Your task to perform on an android device: set default search engine in the chrome app Image 0: 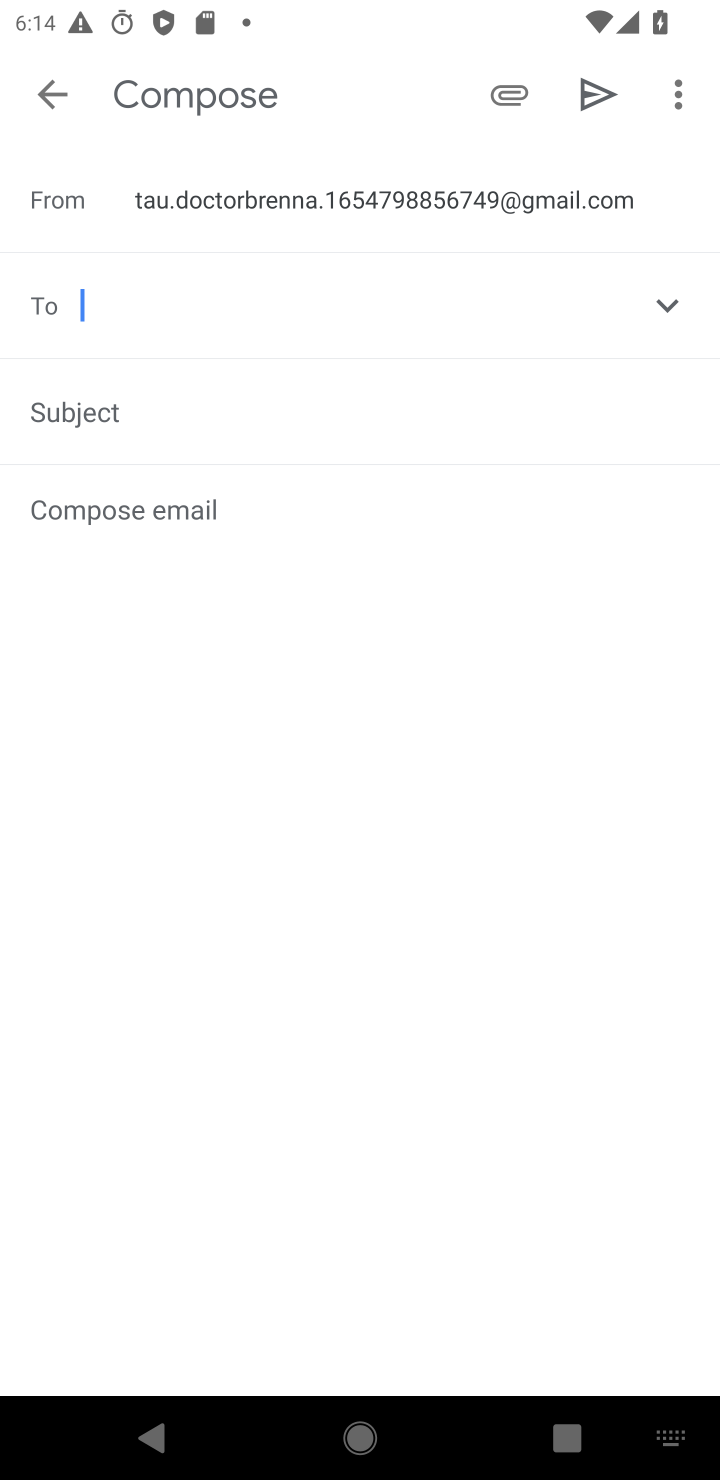
Step 0: press home button
Your task to perform on an android device: set default search engine in the chrome app Image 1: 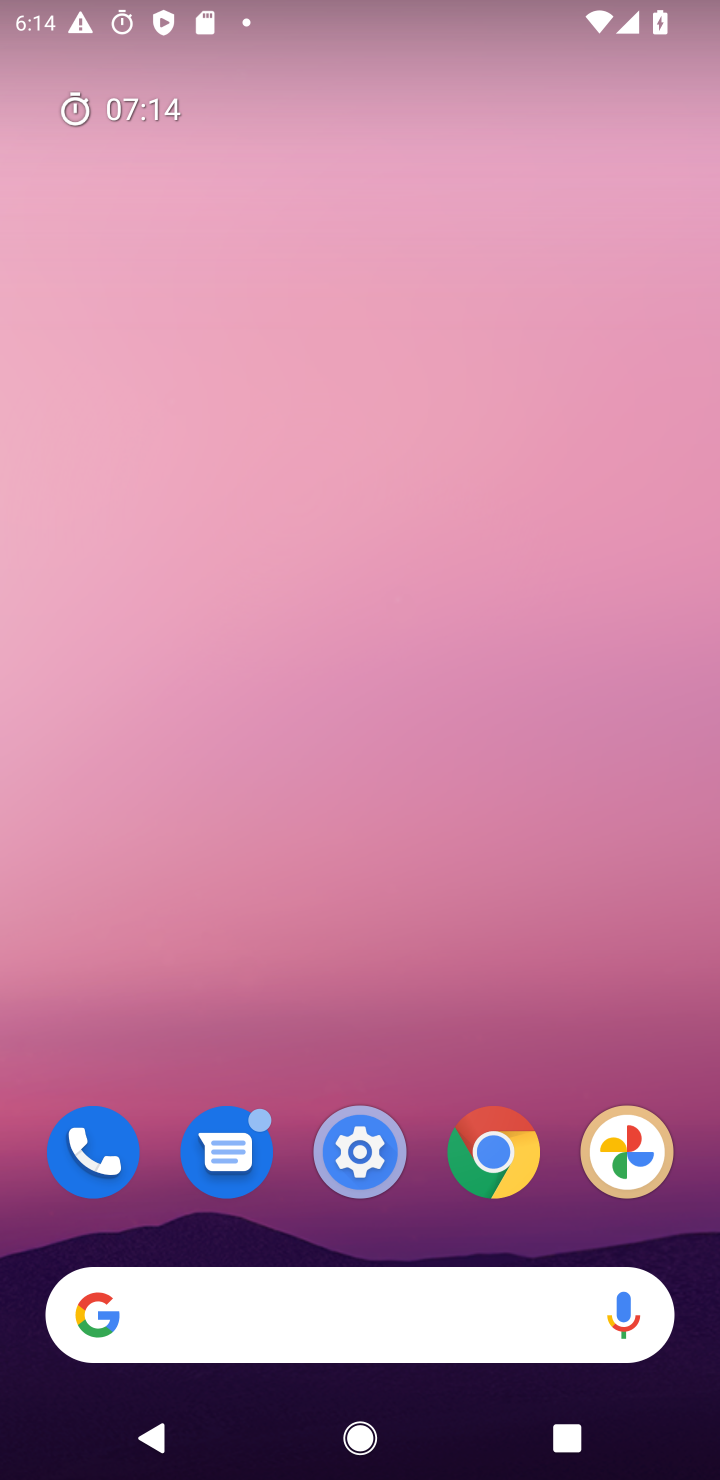
Step 1: drag from (426, 1094) to (648, 66)
Your task to perform on an android device: set default search engine in the chrome app Image 2: 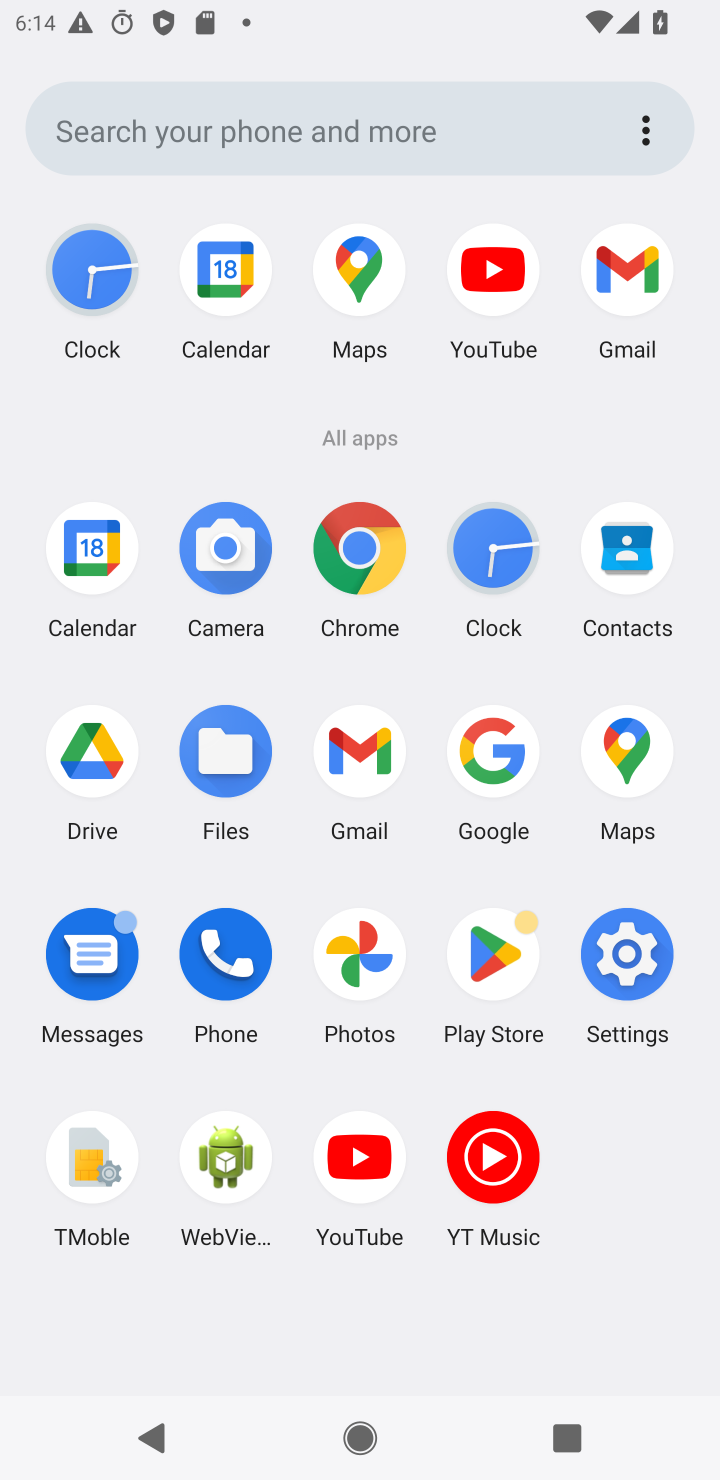
Step 2: click (355, 557)
Your task to perform on an android device: set default search engine in the chrome app Image 3: 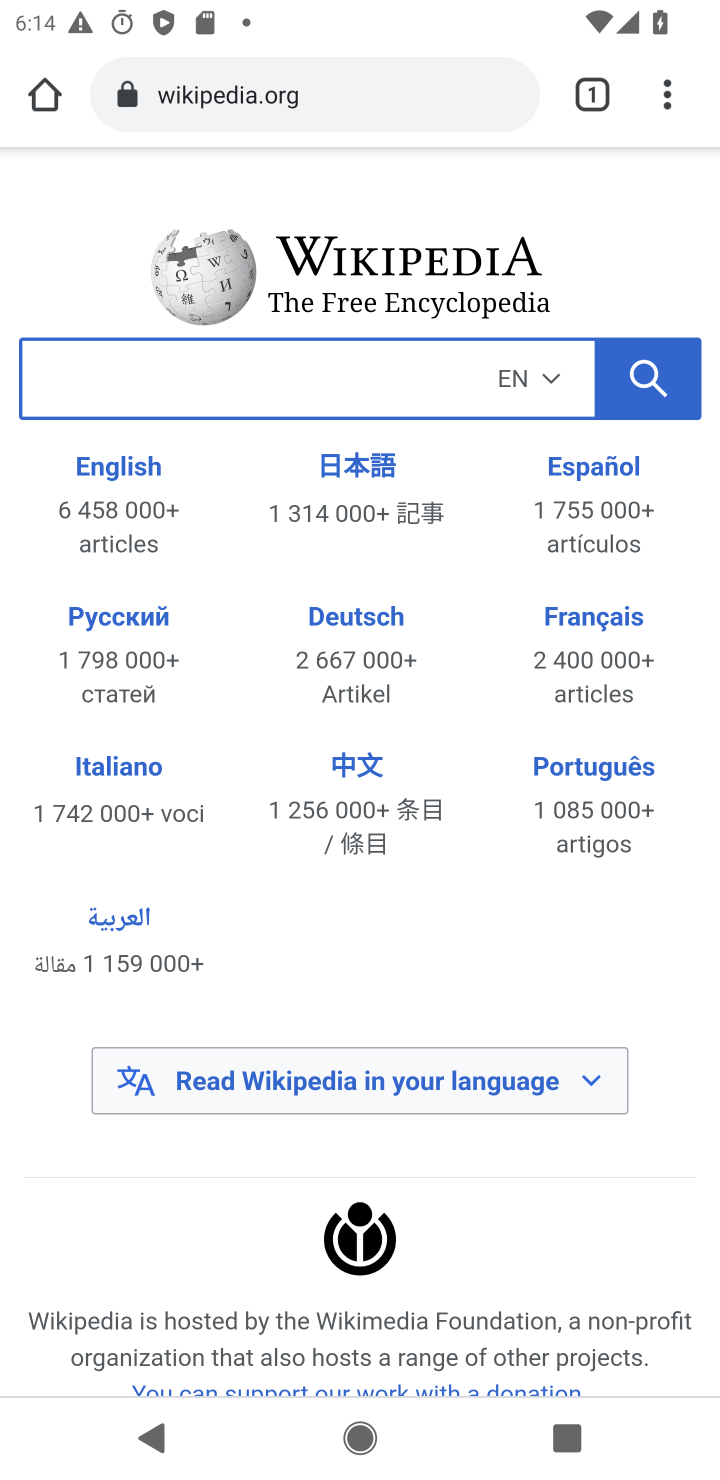
Step 3: drag from (669, 93) to (388, 1238)
Your task to perform on an android device: set default search engine in the chrome app Image 4: 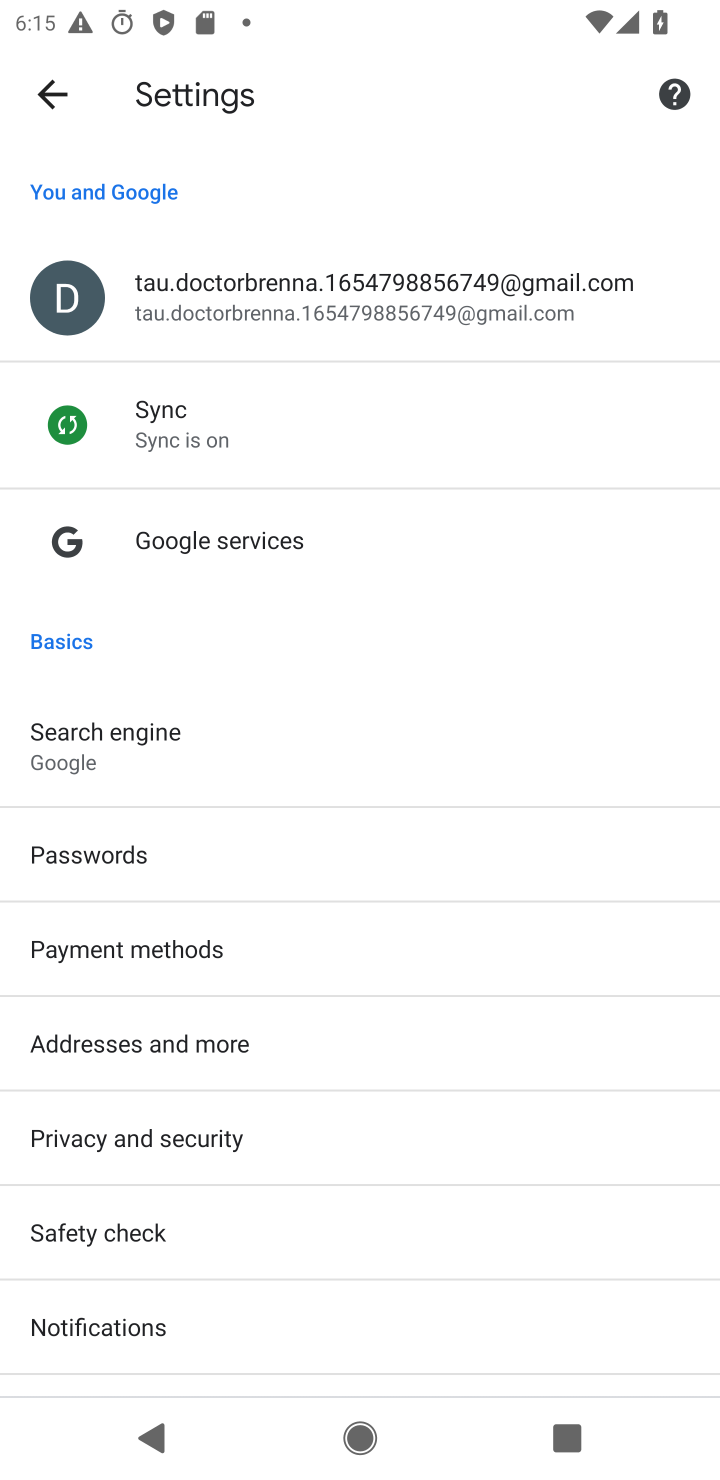
Step 4: click (105, 734)
Your task to perform on an android device: set default search engine in the chrome app Image 5: 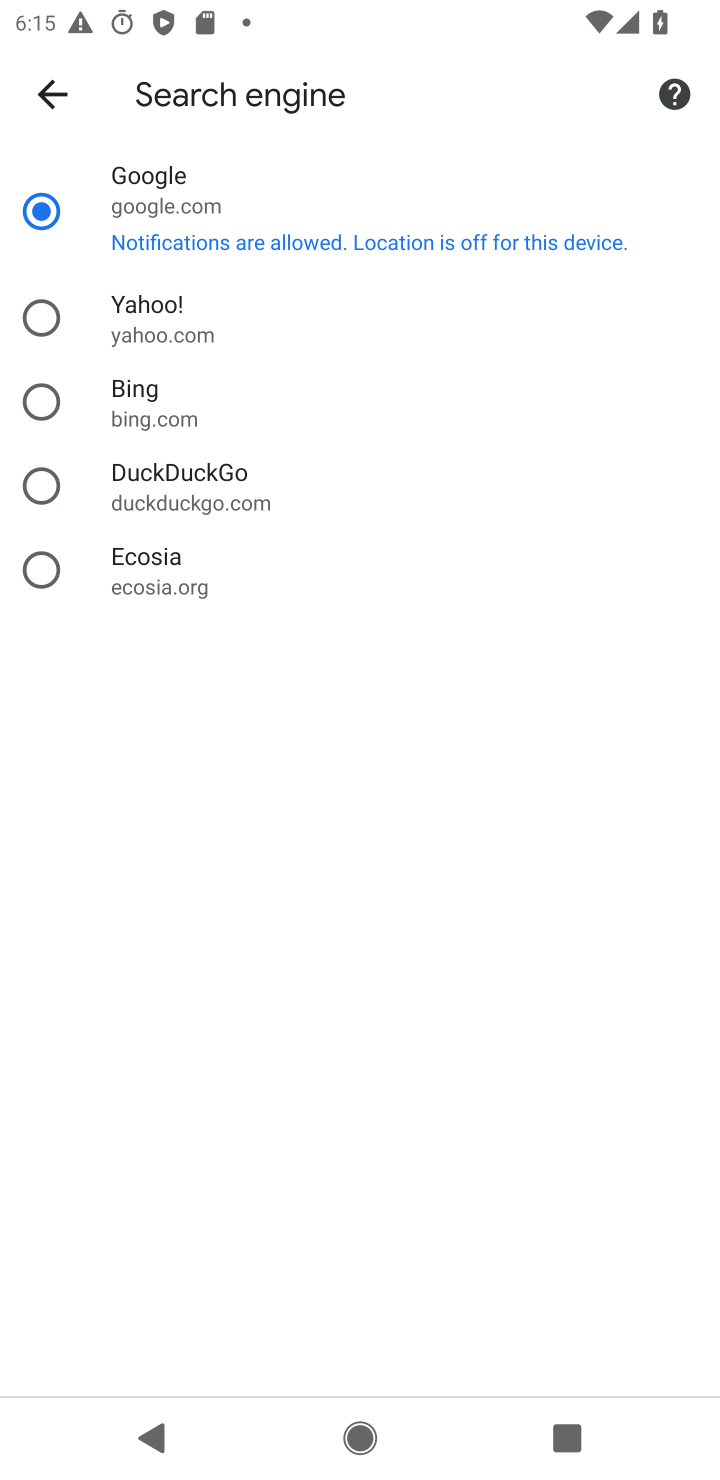
Step 5: task complete